Your task to perform on an android device: turn off improve location accuracy Image 0: 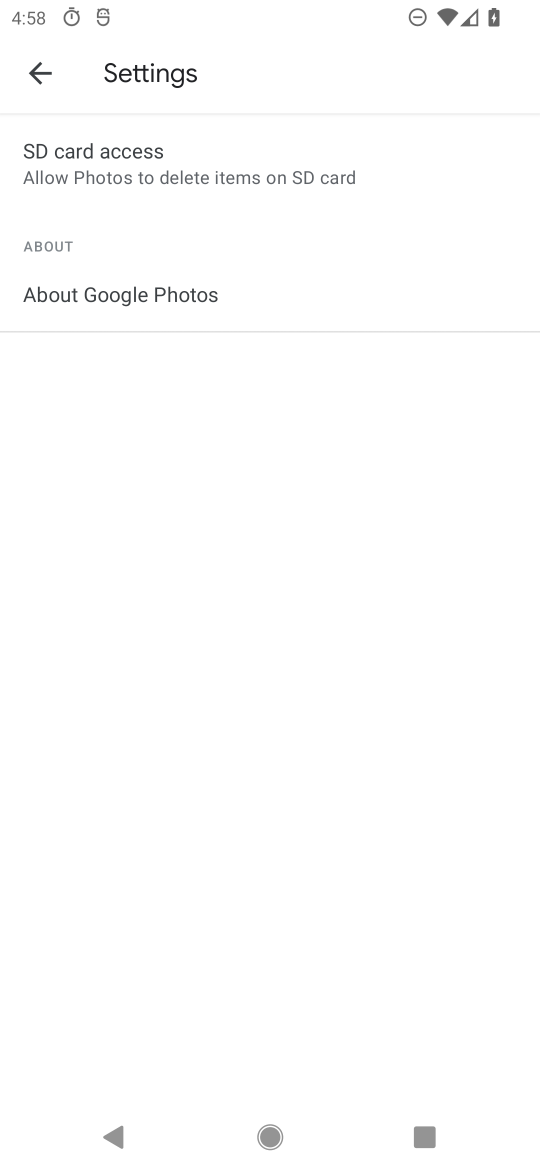
Step 0: press home button
Your task to perform on an android device: turn off improve location accuracy Image 1: 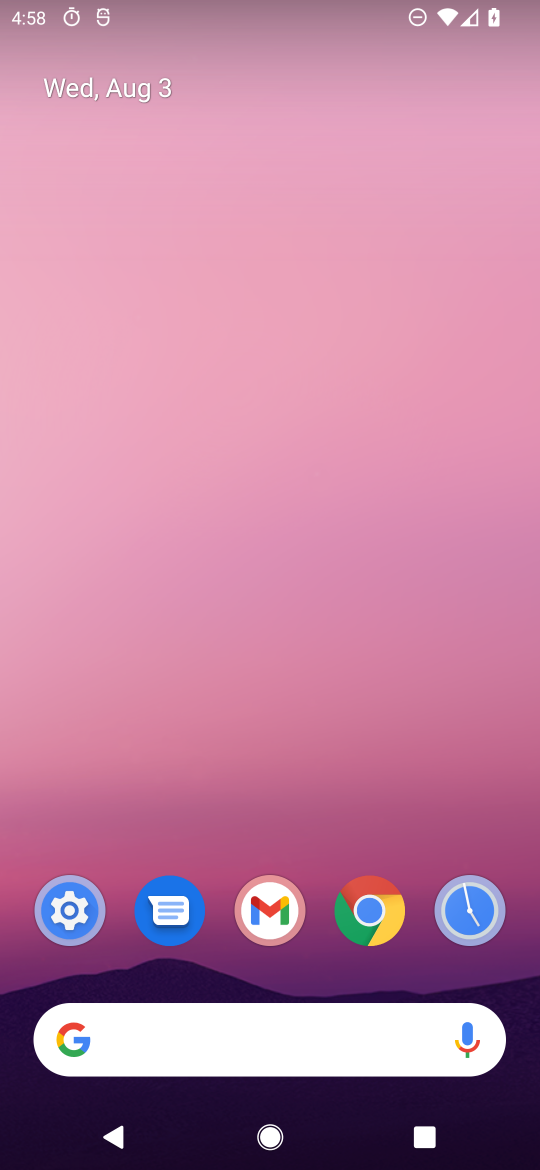
Step 1: drag from (120, 932) to (275, 230)
Your task to perform on an android device: turn off improve location accuracy Image 2: 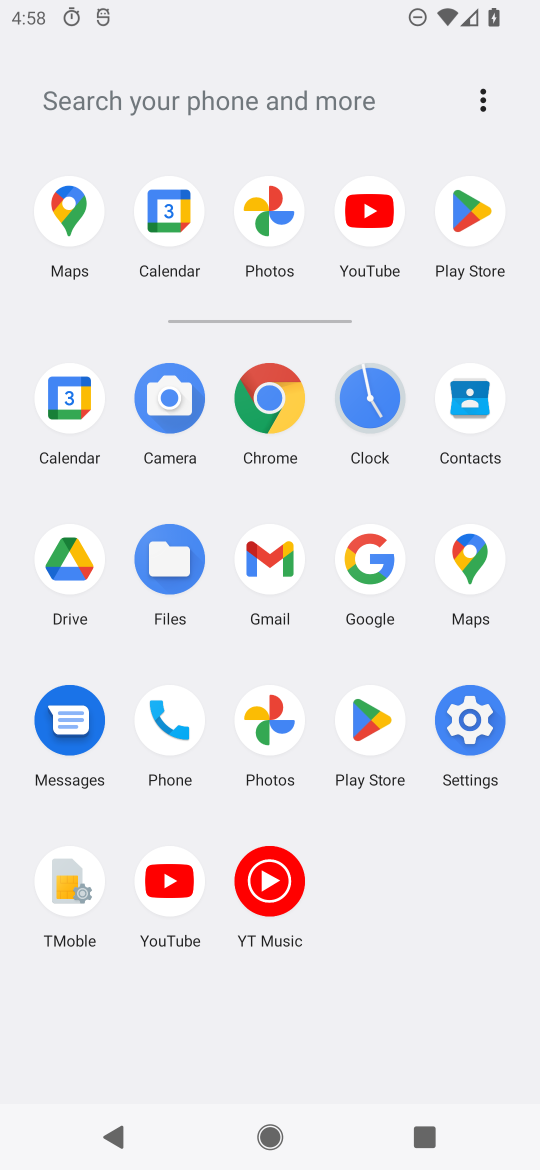
Step 2: click (479, 729)
Your task to perform on an android device: turn off improve location accuracy Image 3: 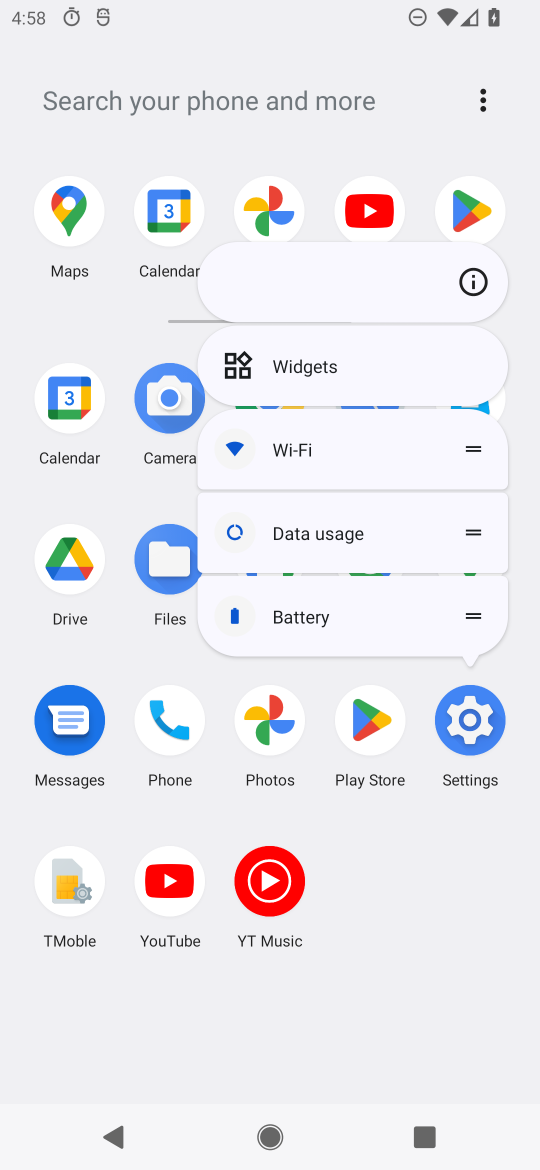
Step 3: click (469, 737)
Your task to perform on an android device: turn off improve location accuracy Image 4: 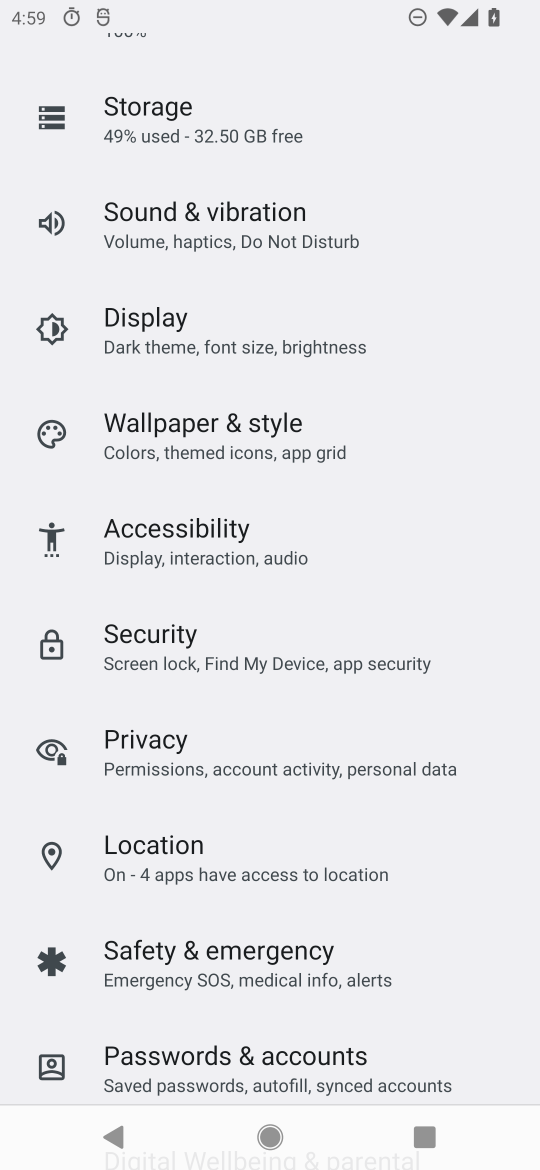
Step 4: click (157, 860)
Your task to perform on an android device: turn off improve location accuracy Image 5: 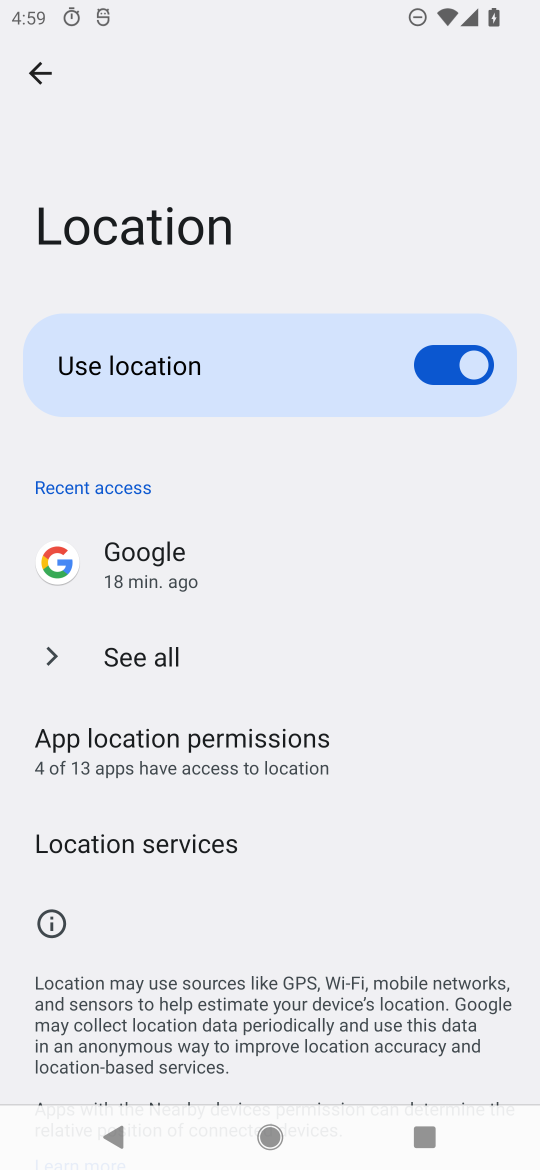
Step 5: drag from (221, 905) to (402, 155)
Your task to perform on an android device: turn off improve location accuracy Image 6: 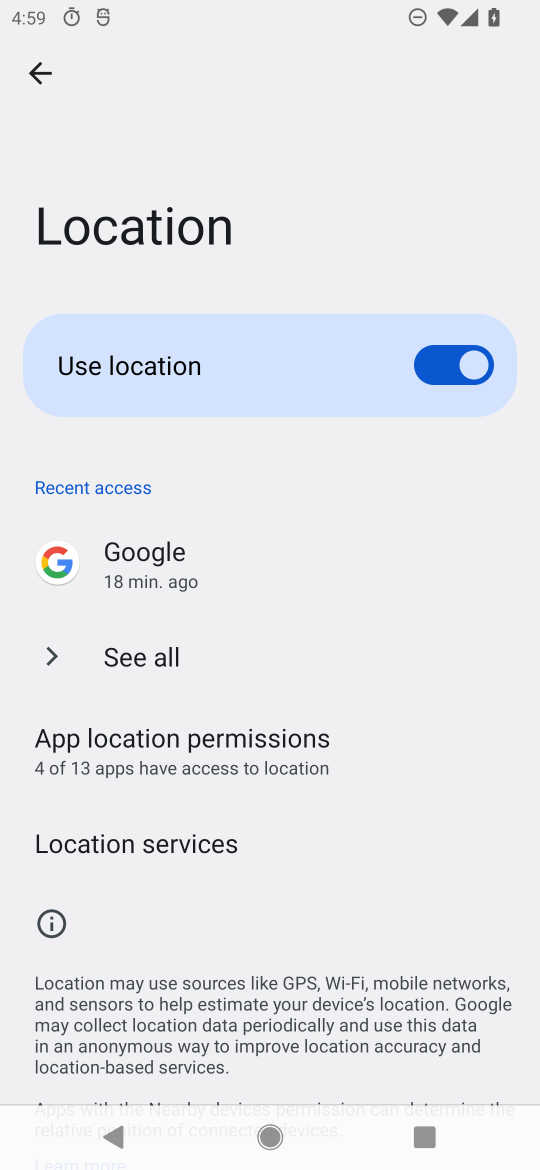
Step 6: click (138, 851)
Your task to perform on an android device: turn off improve location accuracy Image 7: 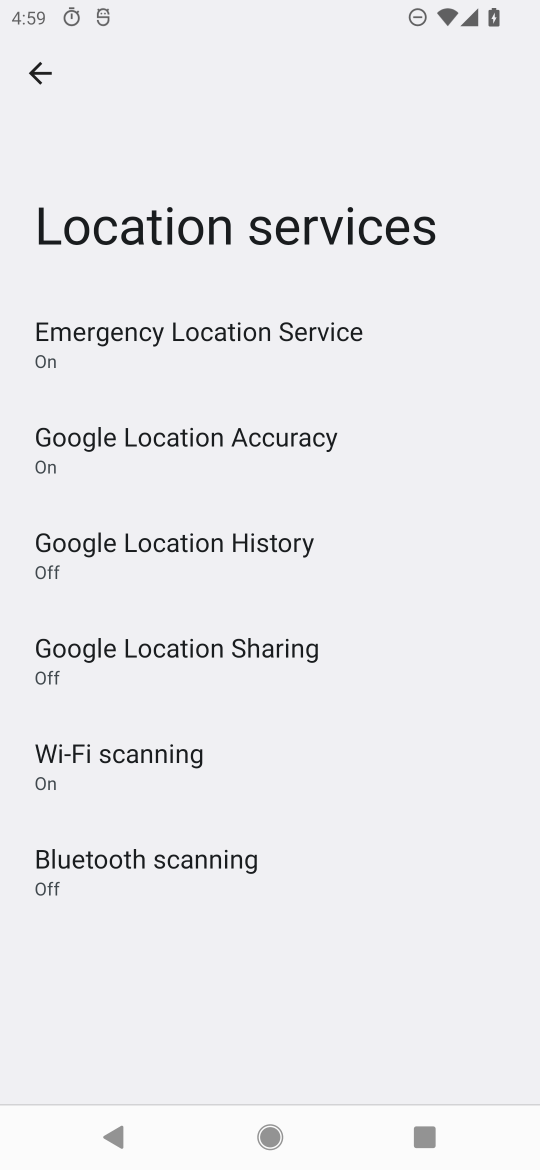
Step 7: click (173, 430)
Your task to perform on an android device: turn off improve location accuracy Image 8: 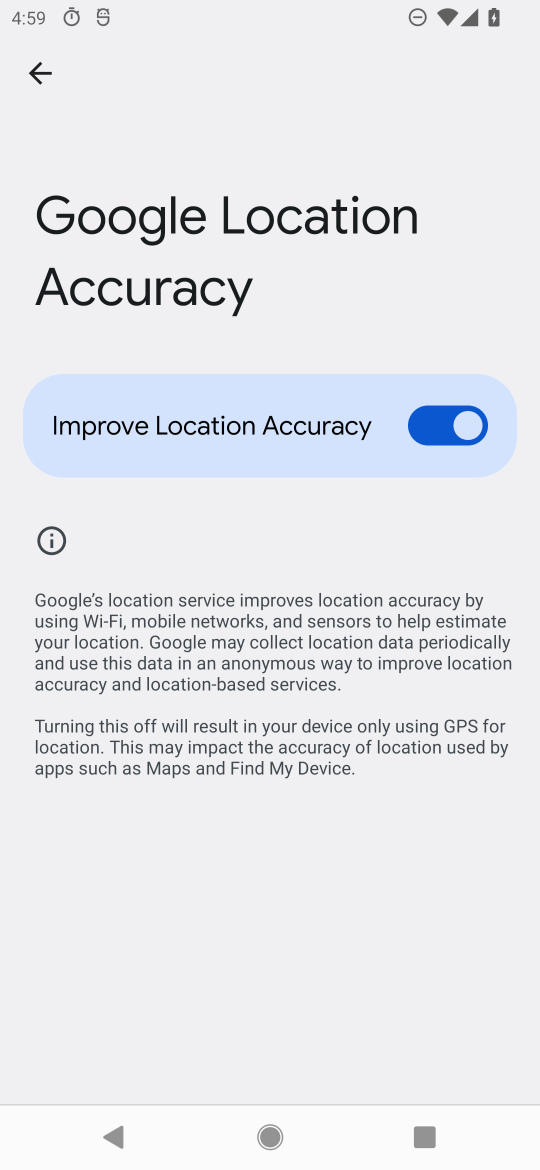
Step 8: click (473, 436)
Your task to perform on an android device: turn off improve location accuracy Image 9: 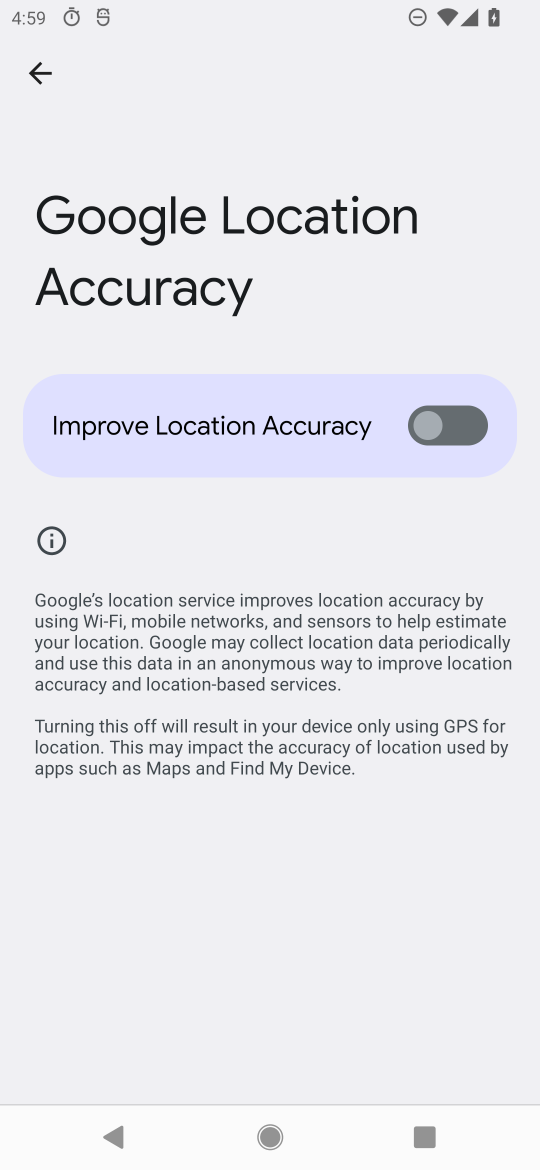
Step 9: task complete